Your task to perform on an android device: turn on airplane mode Image 0: 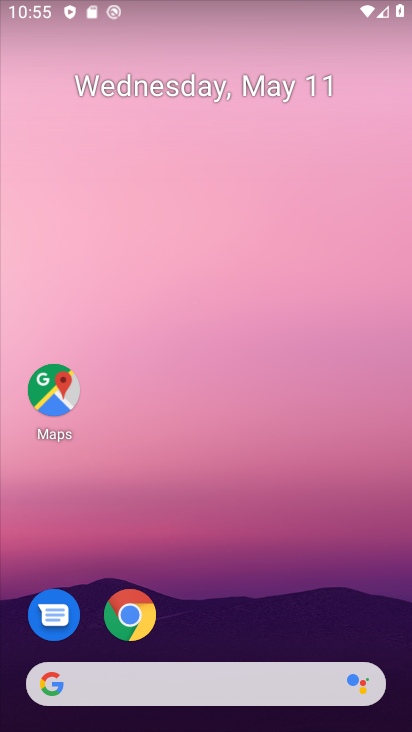
Step 0: drag from (264, 530) to (298, 136)
Your task to perform on an android device: turn on airplane mode Image 1: 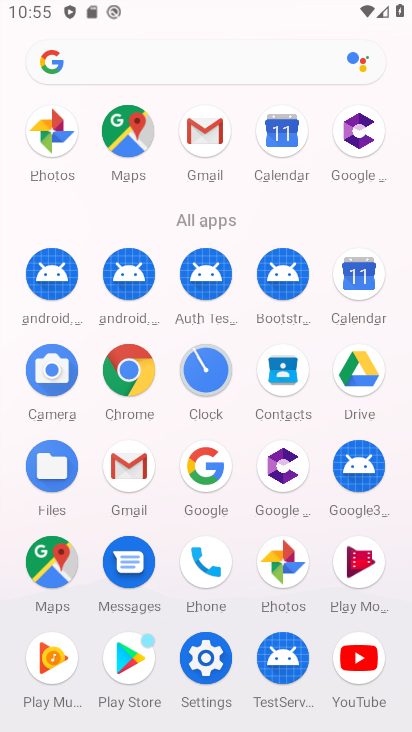
Step 1: click (194, 664)
Your task to perform on an android device: turn on airplane mode Image 2: 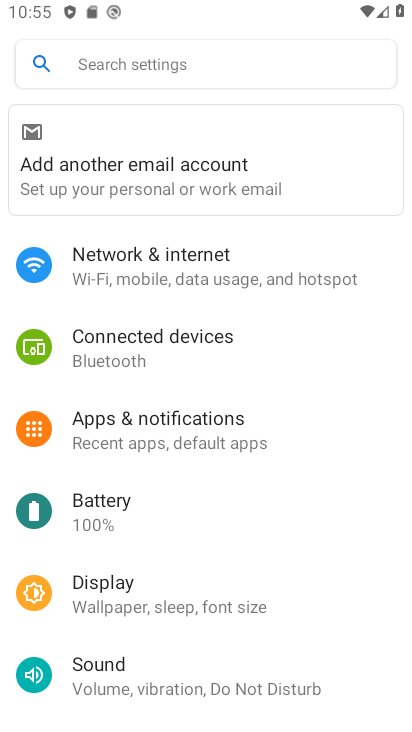
Step 2: click (144, 254)
Your task to perform on an android device: turn on airplane mode Image 3: 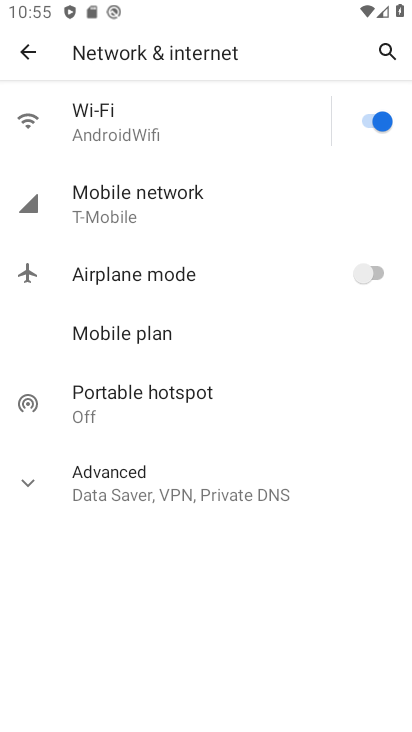
Step 3: click (364, 274)
Your task to perform on an android device: turn on airplane mode Image 4: 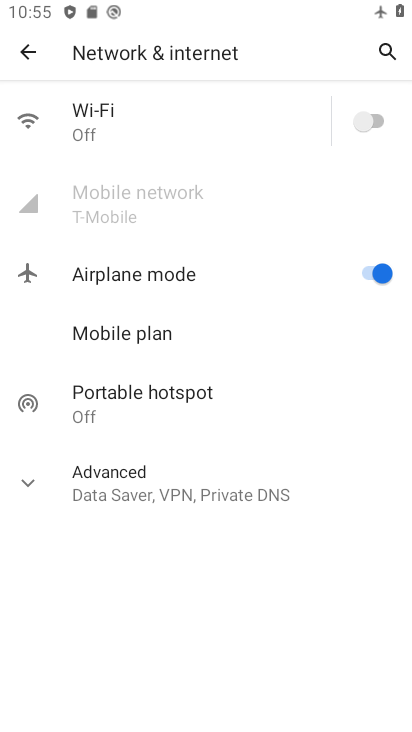
Step 4: task complete